Your task to perform on an android device: toggle pop-ups in chrome Image 0: 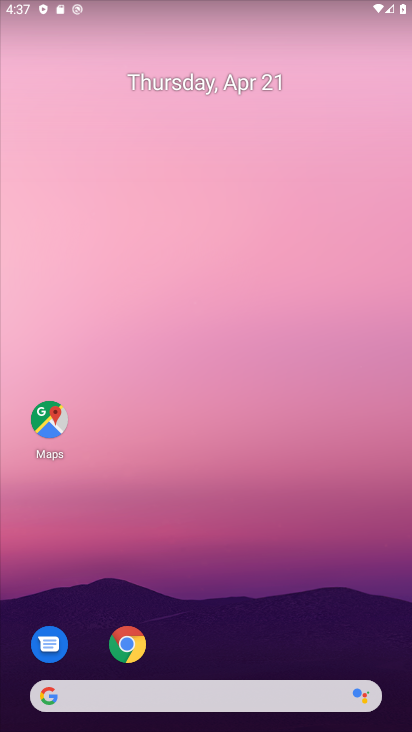
Step 0: drag from (266, 624) to (336, 143)
Your task to perform on an android device: toggle pop-ups in chrome Image 1: 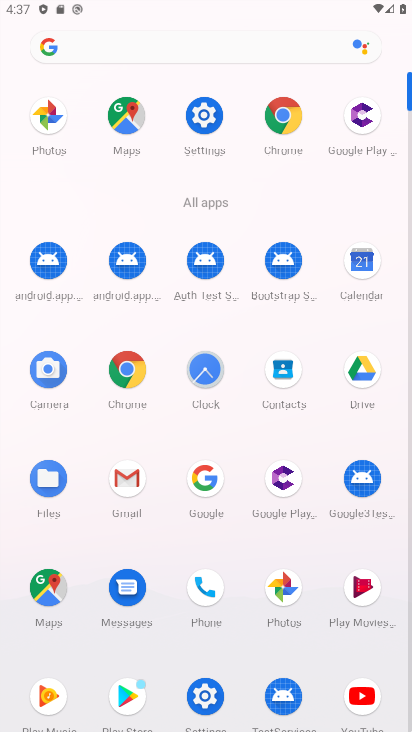
Step 1: click (119, 371)
Your task to perform on an android device: toggle pop-ups in chrome Image 2: 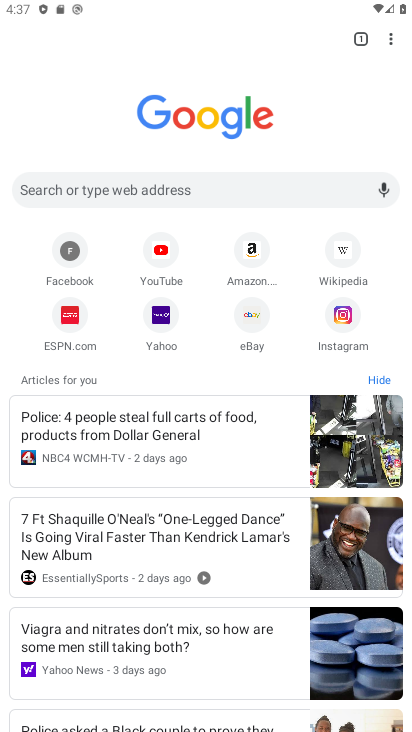
Step 2: drag from (393, 35) to (275, 333)
Your task to perform on an android device: toggle pop-ups in chrome Image 3: 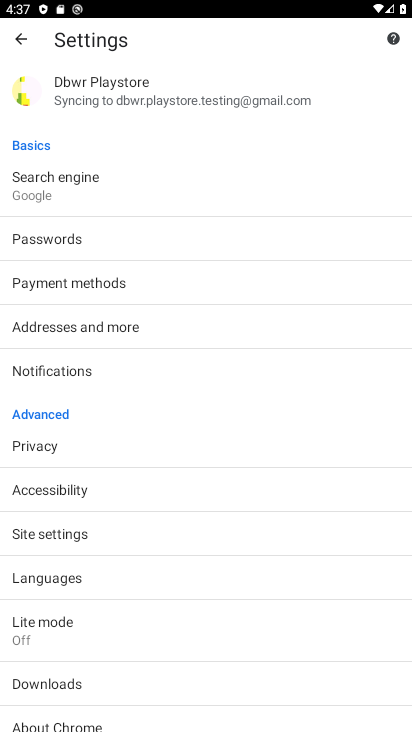
Step 3: click (76, 532)
Your task to perform on an android device: toggle pop-ups in chrome Image 4: 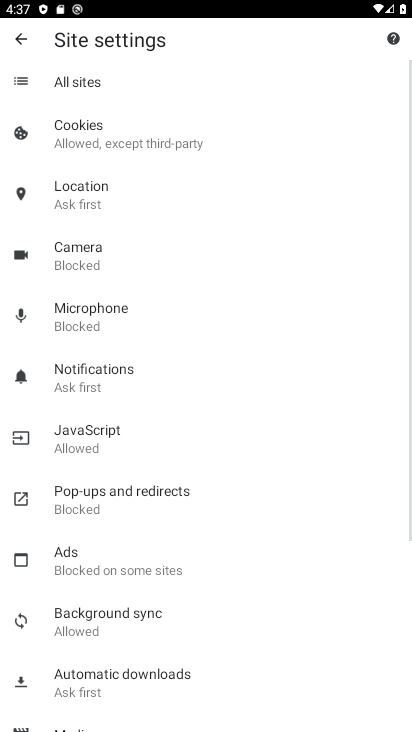
Step 4: click (98, 510)
Your task to perform on an android device: toggle pop-ups in chrome Image 5: 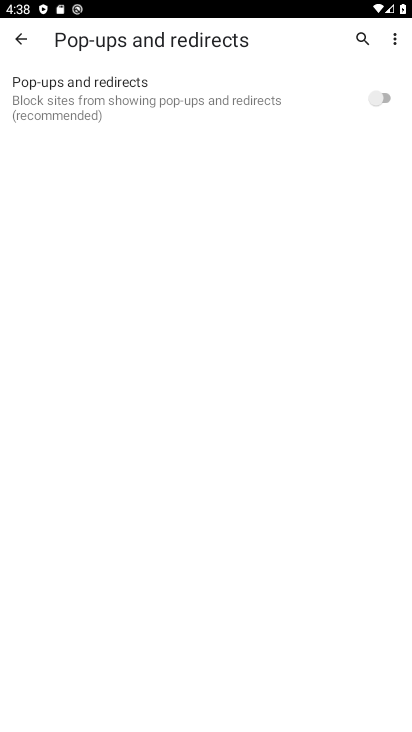
Step 5: click (361, 101)
Your task to perform on an android device: toggle pop-ups in chrome Image 6: 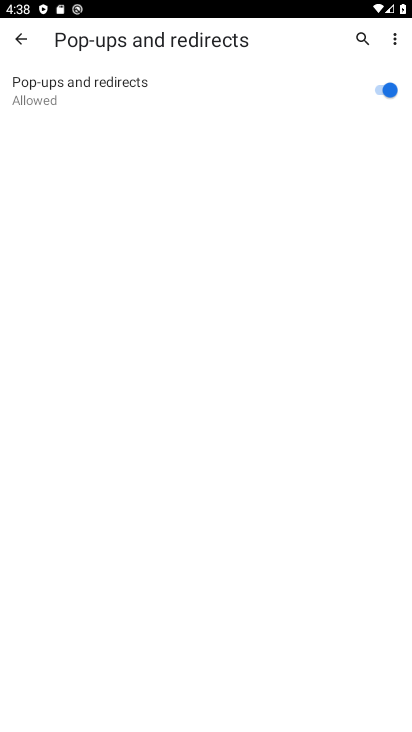
Step 6: task complete